Your task to perform on an android device: open app "Adobe Acrobat Reader: Edit PDF" (install if not already installed), go to login, and select forgot password Image 0: 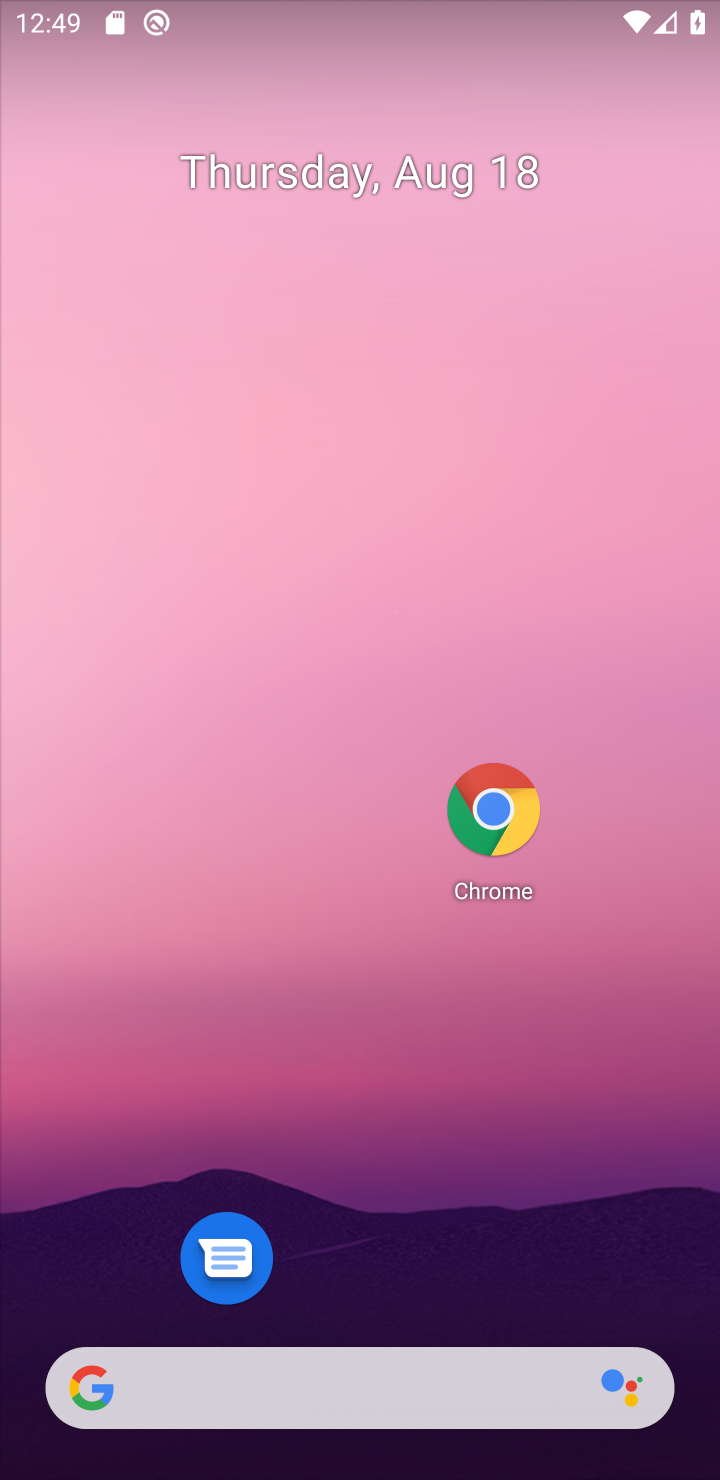
Step 0: drag from (368, 1039) to (361, 494)
Your task to perform on an android device: open app "Adobe Acrobat Reader: Edit PDF" (install if not already installed), go to login, and select forgot password Image 1: 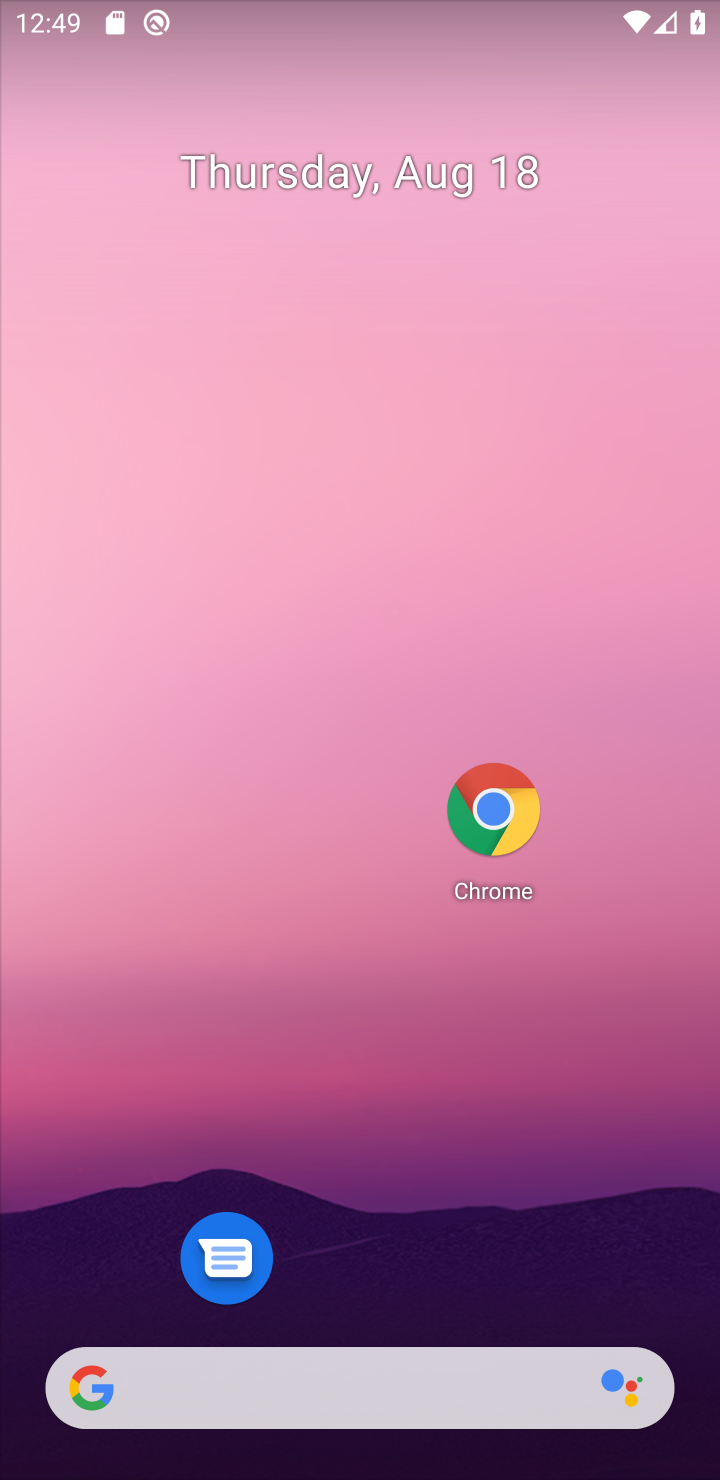
Step 1: drag from (356, 1107) to (356, 294)
Your task to perform on an android device: open app "Adobe Acrobat Reader: Edit PDF" (install if not already installed), go to login, and select forgot password Image 2: 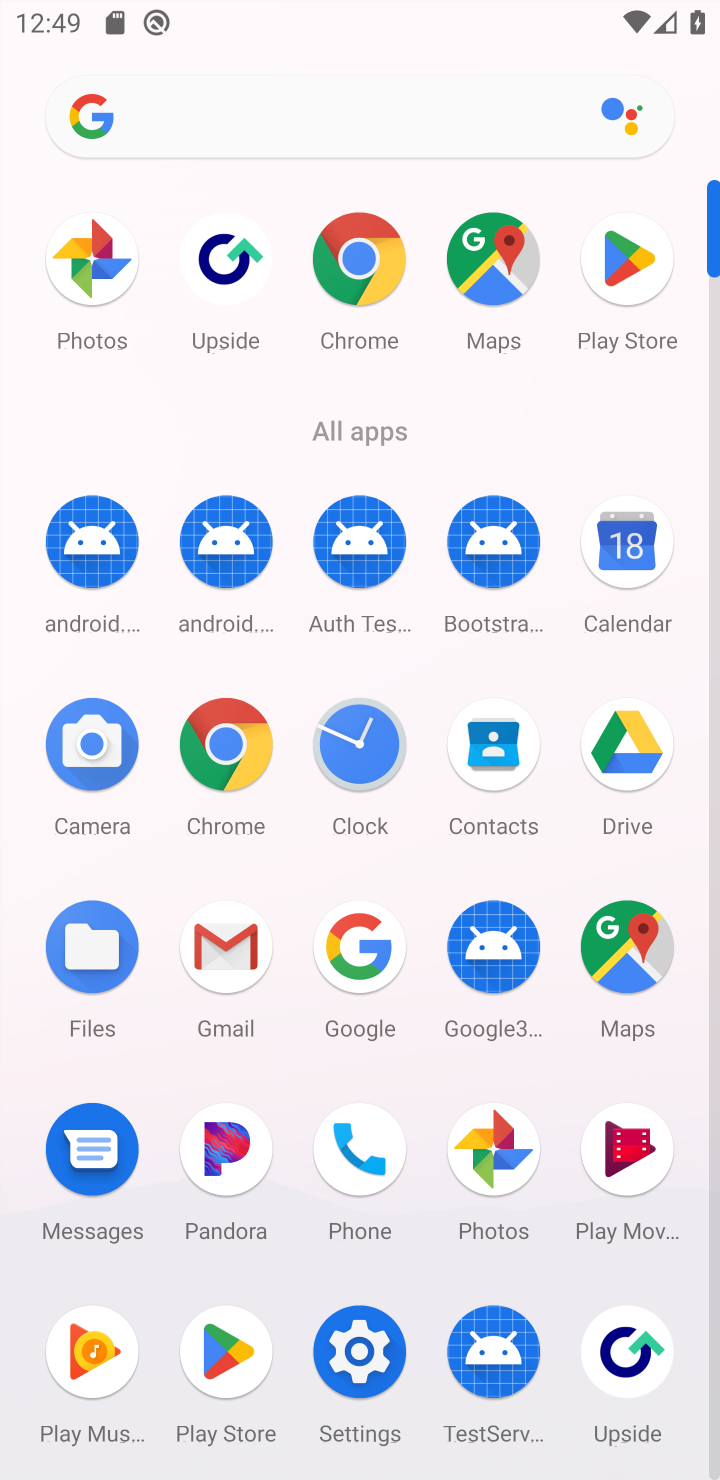
Step 2: click (642, 272)
Your task to perform on an android device: open app "Adobe Acrobat Reader: Edit PDF" (install if not already installed), go to login, and select forgot password Image 3: 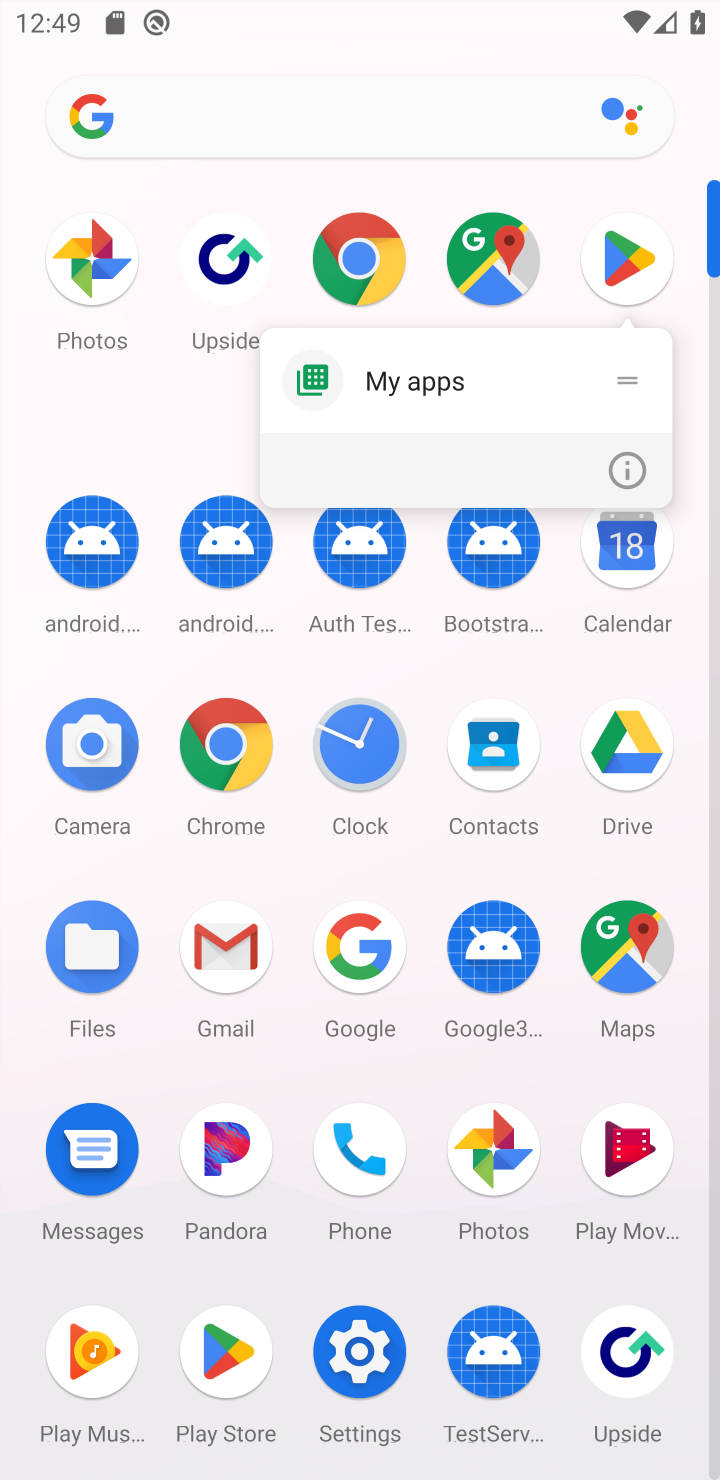
Step 3: click (600, 253)
Your task to perform on an android device: open app "Adobe Acrobat Reader: Edit PDF" (install if not already installed), go to login, and select forgot password Image 4: 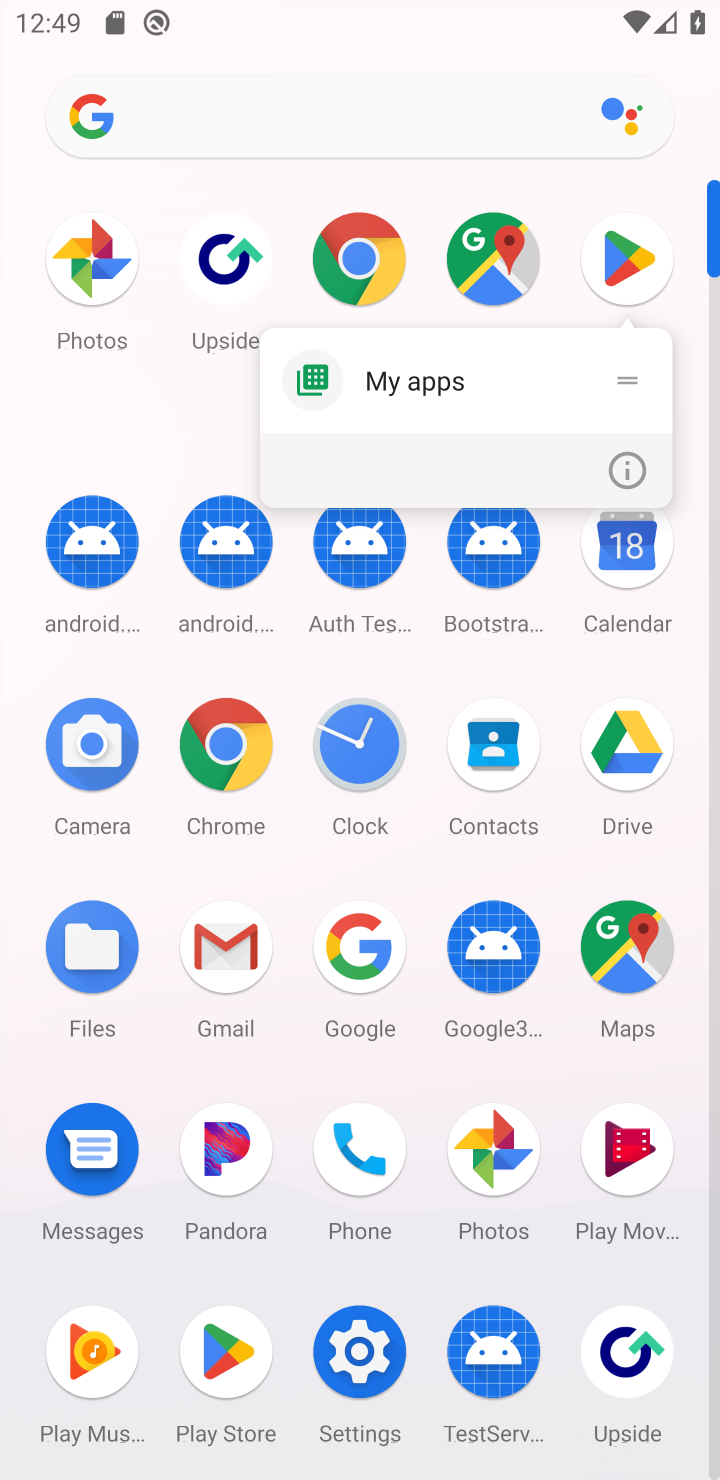
Step 4: click (608, 264)
Your task to perform on an android device: open app "Adobe Acrobat Reader: Edit PDF" (install if not already installed), go to login, and select forgot password Image 5: 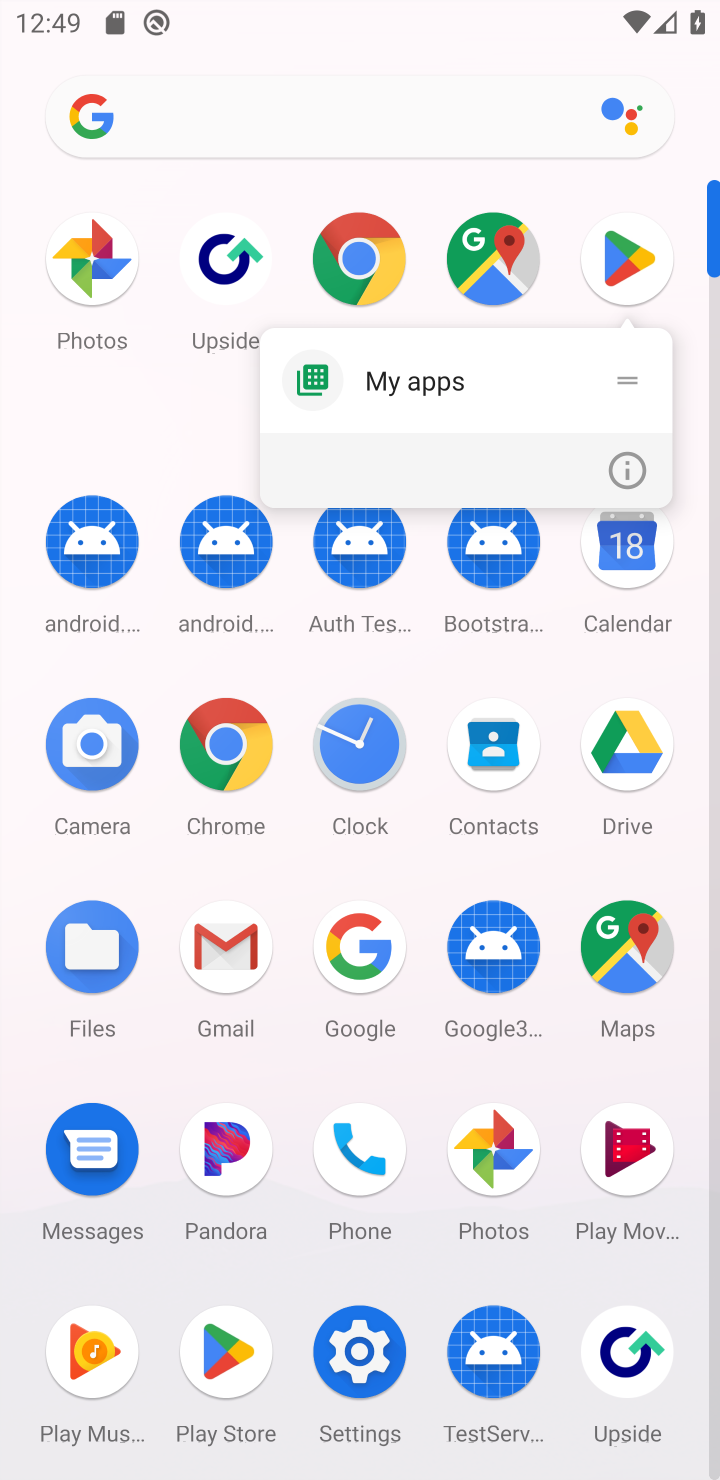
Step 5: click (630, 249)
Your task to perform on an android device: open app "Adobe Acrobat Reader: Edit PDF" (install if not already installed), go to login, and select forgot password Image 6: 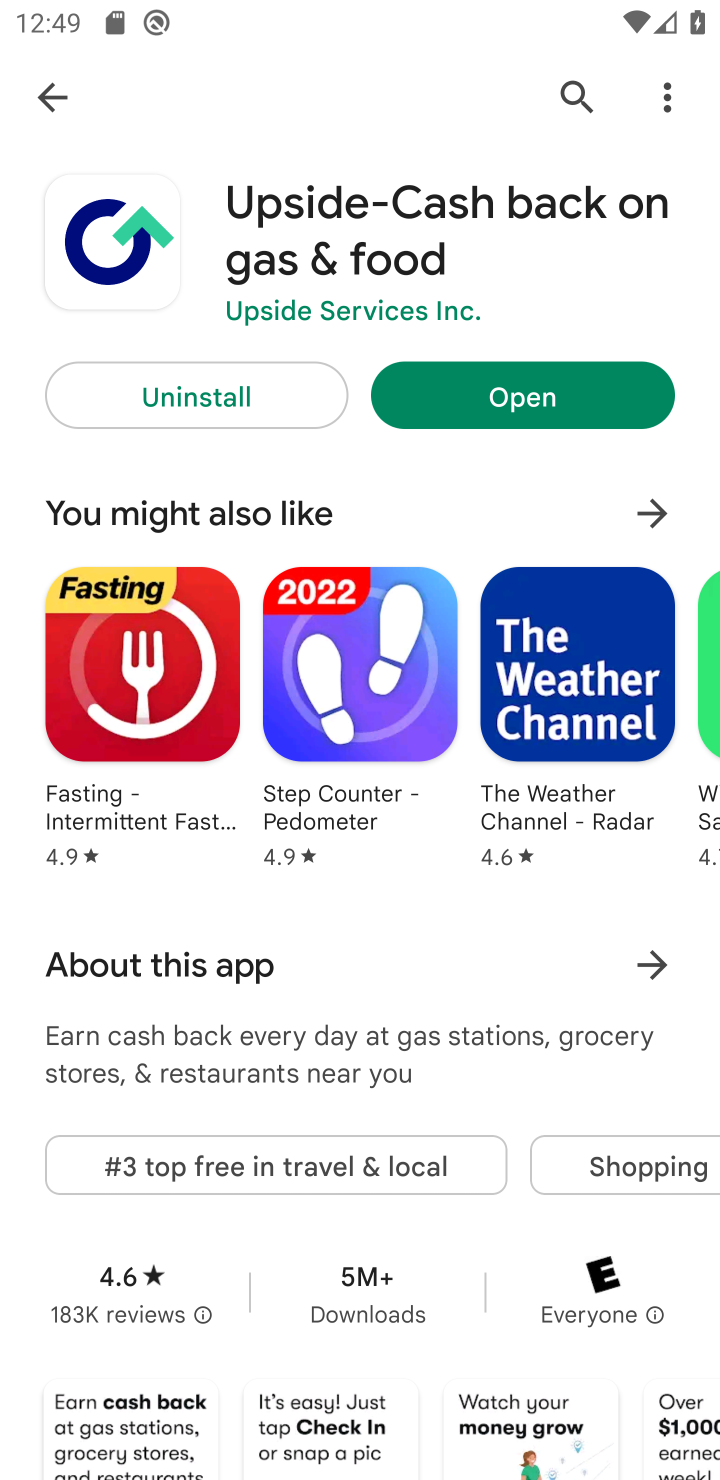
Step 6: click (48, 81)
Your task to perform on an android device: open app "Adobe Acrobat Reader: Edit PDF" (install if not already installed), go to login, and select forgot password Image 7: 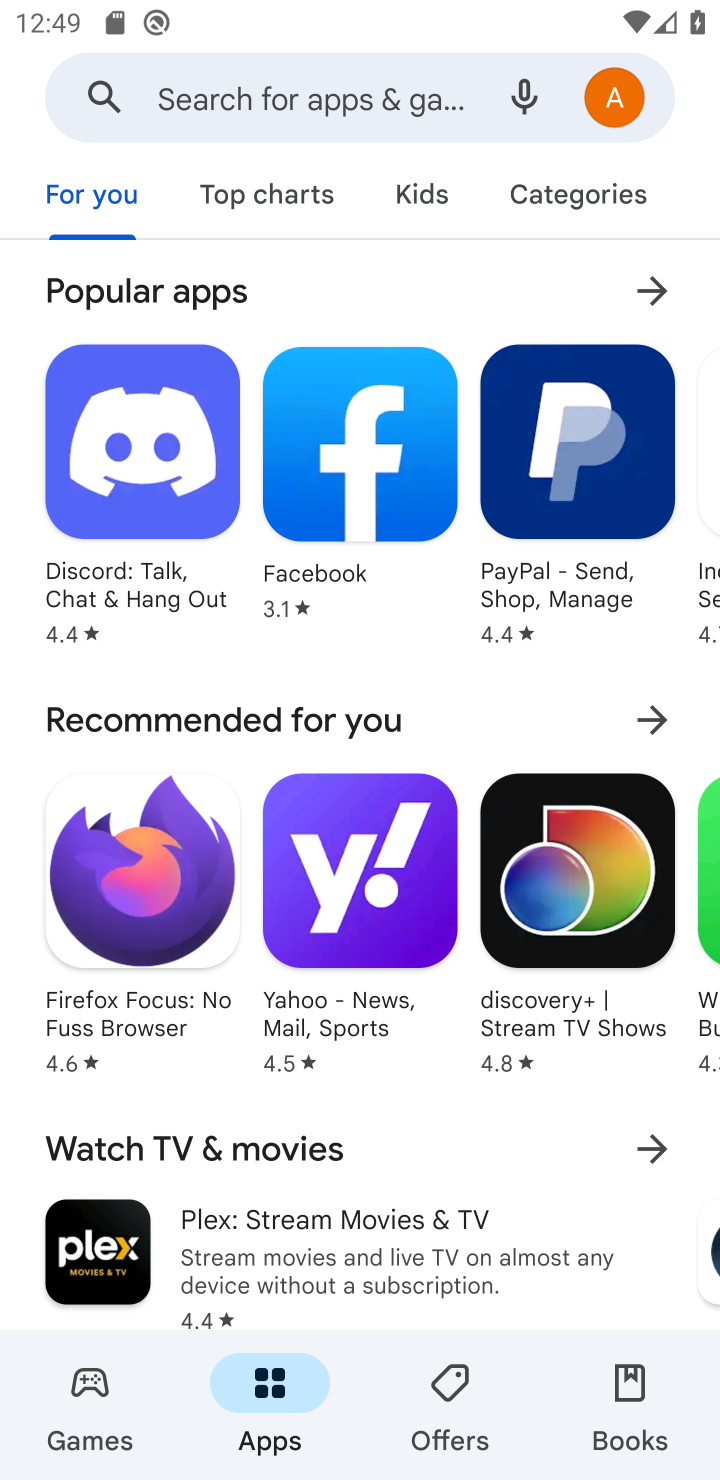
Step 7: click (247, 60)
Your task to perform on an android device: open app "Adobe Acrobat Reader: Edit PDF" (install if not already installed), go to login, and select forgot password Image 8: 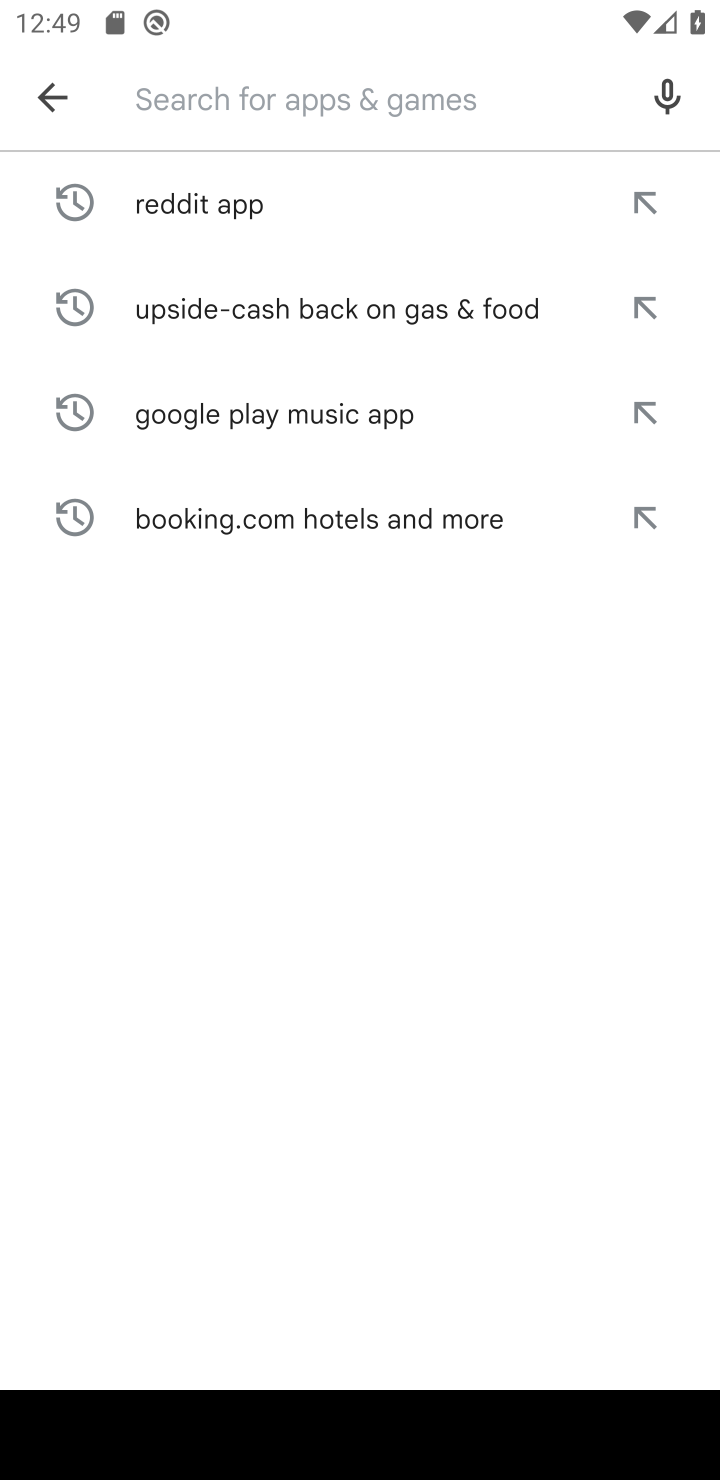
Step 8: type "Adobe Acrobat Reader: Edit PDF "
Your task to perform on an android device: open app "Adobe Acrobat Reader: Edit PDF" (install if not already installed), go to login, and select forgot password Image 9: 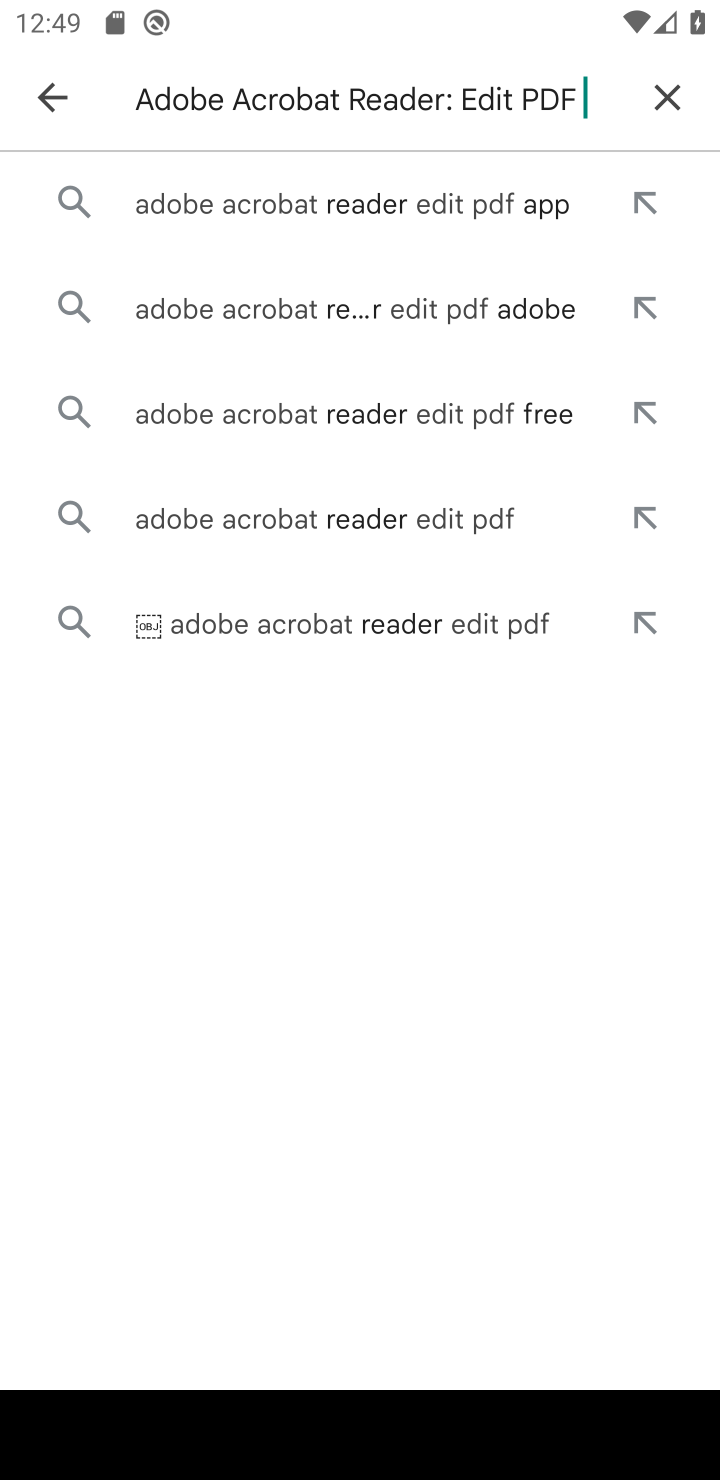
Step 9: click (395, 188)
Your task to perform on an android device: open app "Adobe Acrobat Reader: Edit PDF" (install if not already installed), go to login, and select forgot password Image 10: 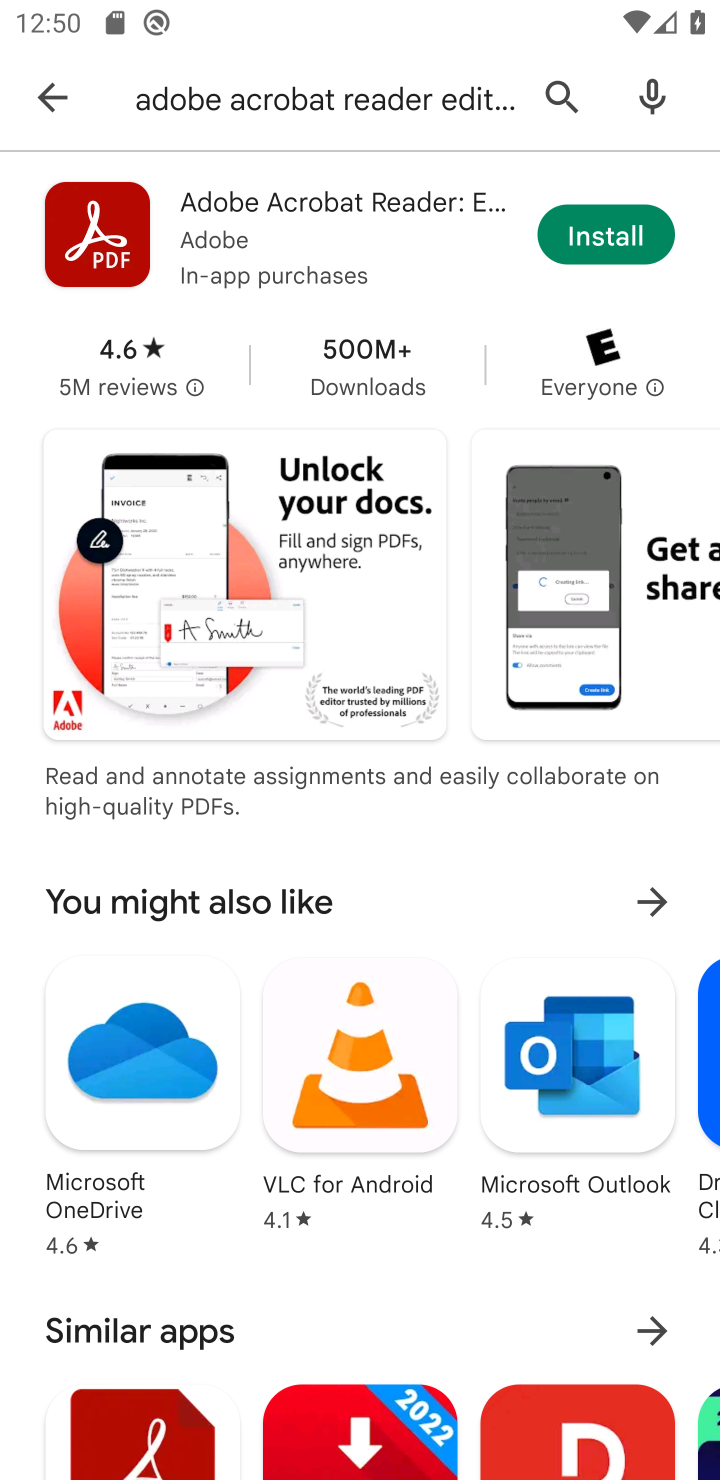
Step 10: click (607, 229)
Your task to perform on an android device: open app "Adobe Acrobat Reader: Edit PDF" (install if not already installed), go to login, and select forgot password Image 11: 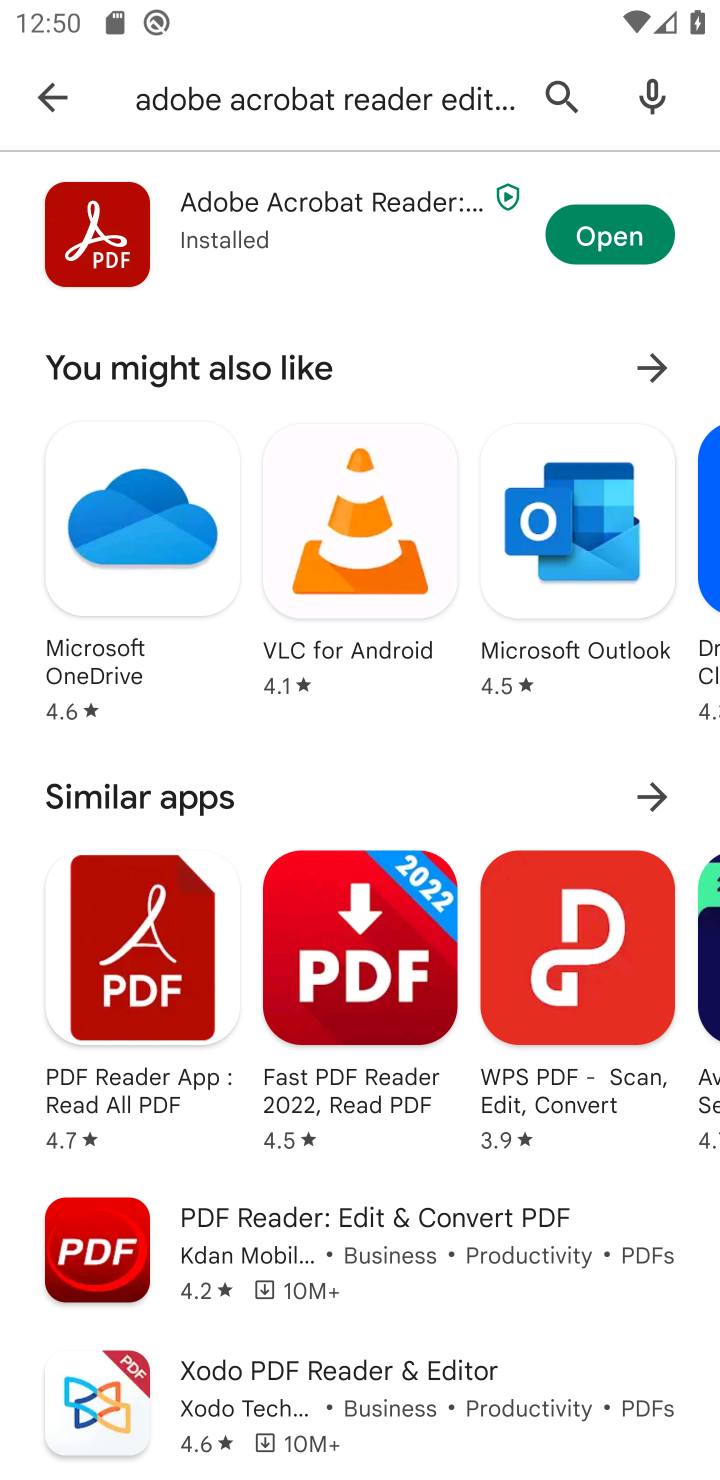
Step 11: click (586, 228)
Your task to perform on an android device: open app "Adobe Acrobat Reader: Edit PDF" (install if not already installed), go to login, and select forgot password Image 12: 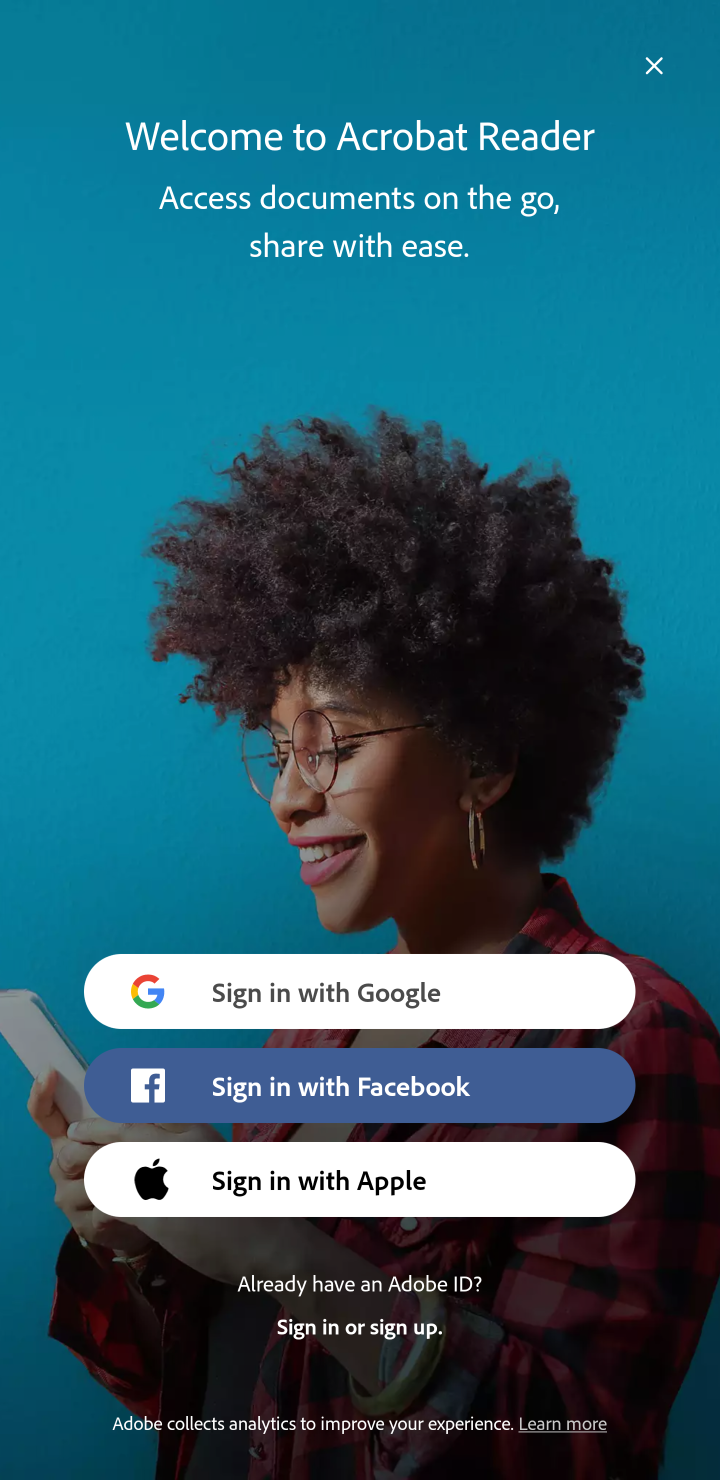
Step 12: task complete